Your task to perform on an android device: turn on wifi Image 0: 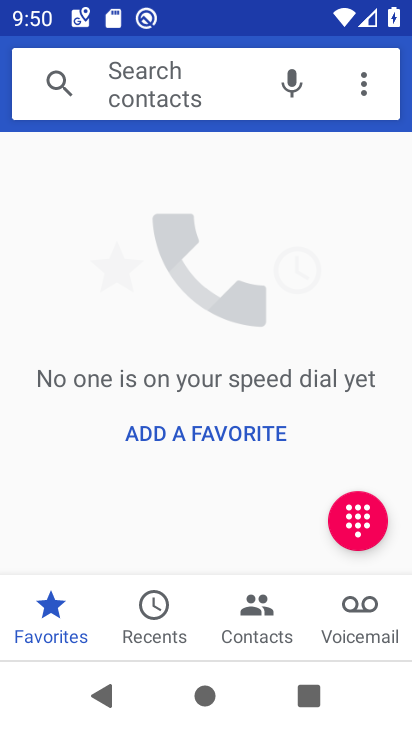
Step 0: press home button
Your task to perform on an android device: turn on wifi Image 1: 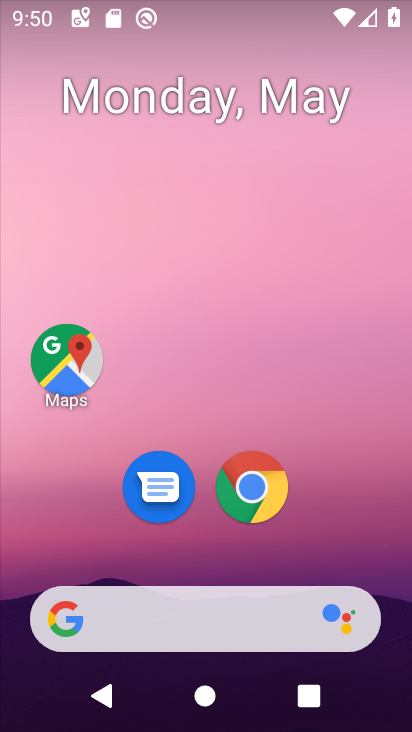
Step 1: drag from (293, 540) to (265, 106)
Your task to perform on an android device: turn on wifi Image 2: 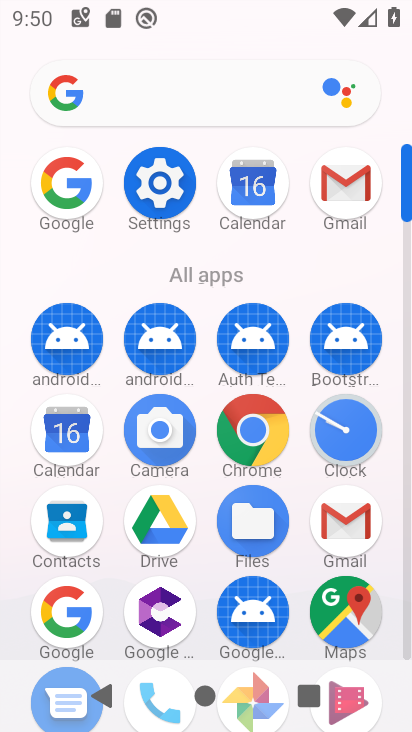
Step 2: click (160, 197)
Your task to perform on an android device: turn on wifi Image 3: 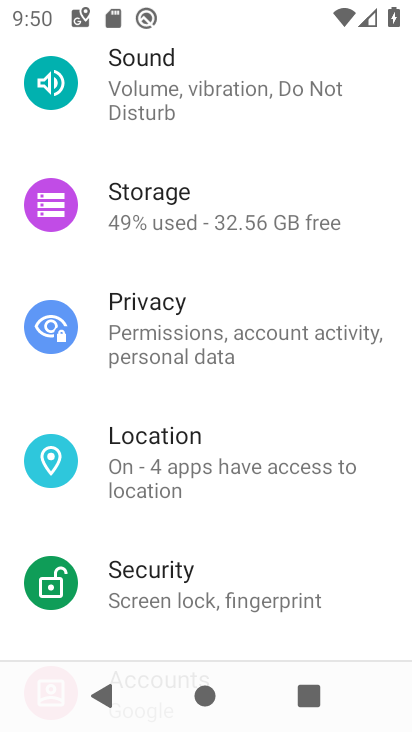
Step 3: drag from (220, 224) to (230, 353)
Your task to perform on an android device: turn on wifi Image 4: 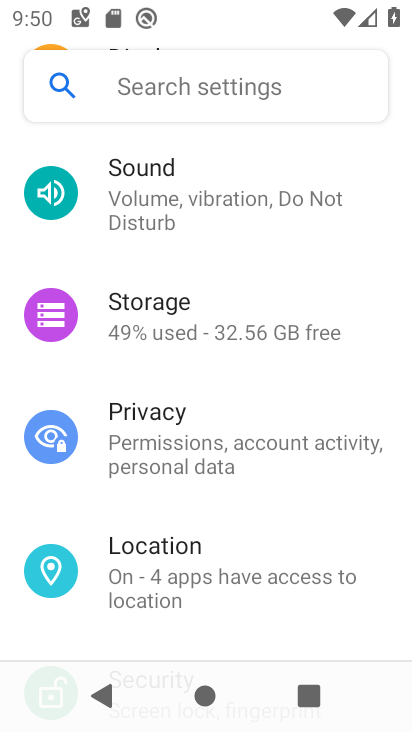
Step 4: drag from (202, 243) to (203, 355)
Your task to perform on an android device: turn on wifi Image 5: 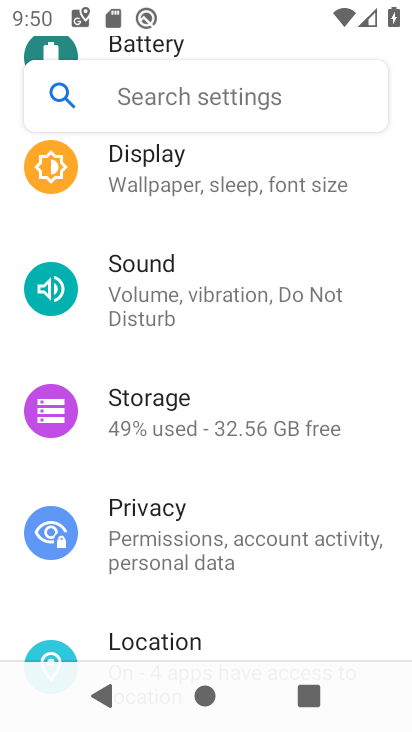
Step 5: drag from (183, 273) to (182, 386)
Your task to perform on an android device: turn on wifi Image 6: 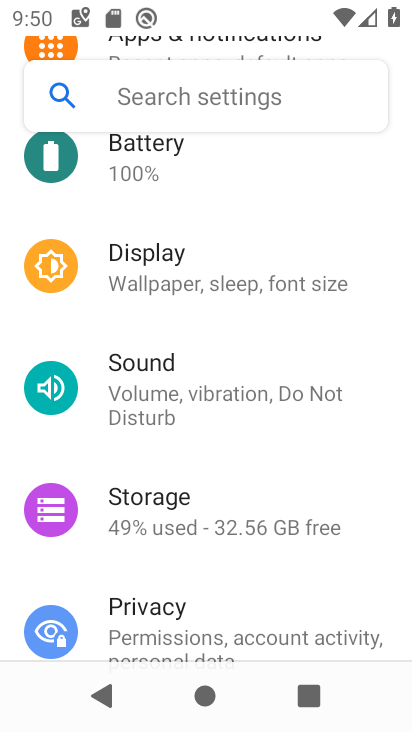
Step 6: drag from (177, 274) to (174, 365)
Your task to perform on an android device: turn on wifi Image 7: 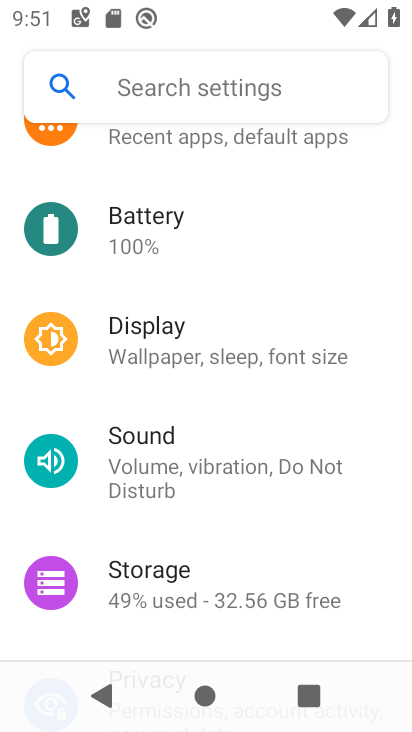
Step 7: drag from (178, 263) to (162, 444)
Your task to perform on an android device: turn on wifi Image 8: 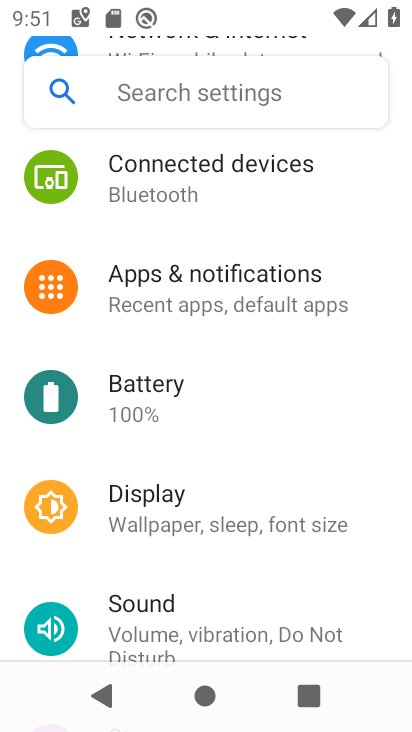
Step 8: drag from (174, 316) to (177, 422)
Your task to perform on an android device: turn on wifi Image 9: 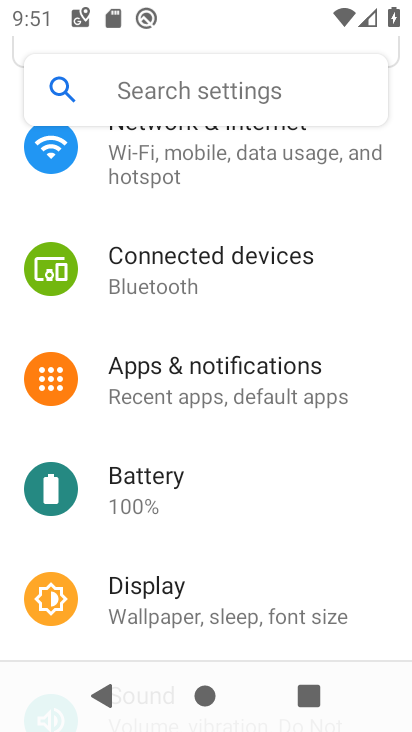
Step 9: click (183, 142)
Your task to perform on an android device: turn on wifi Image 10: 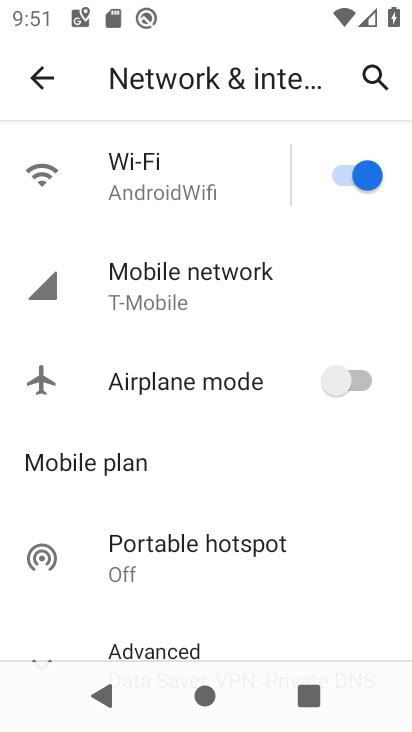
Step 10: task complete